Your task to perform on an android device: find snoozed emails in the gmail app Image 0: 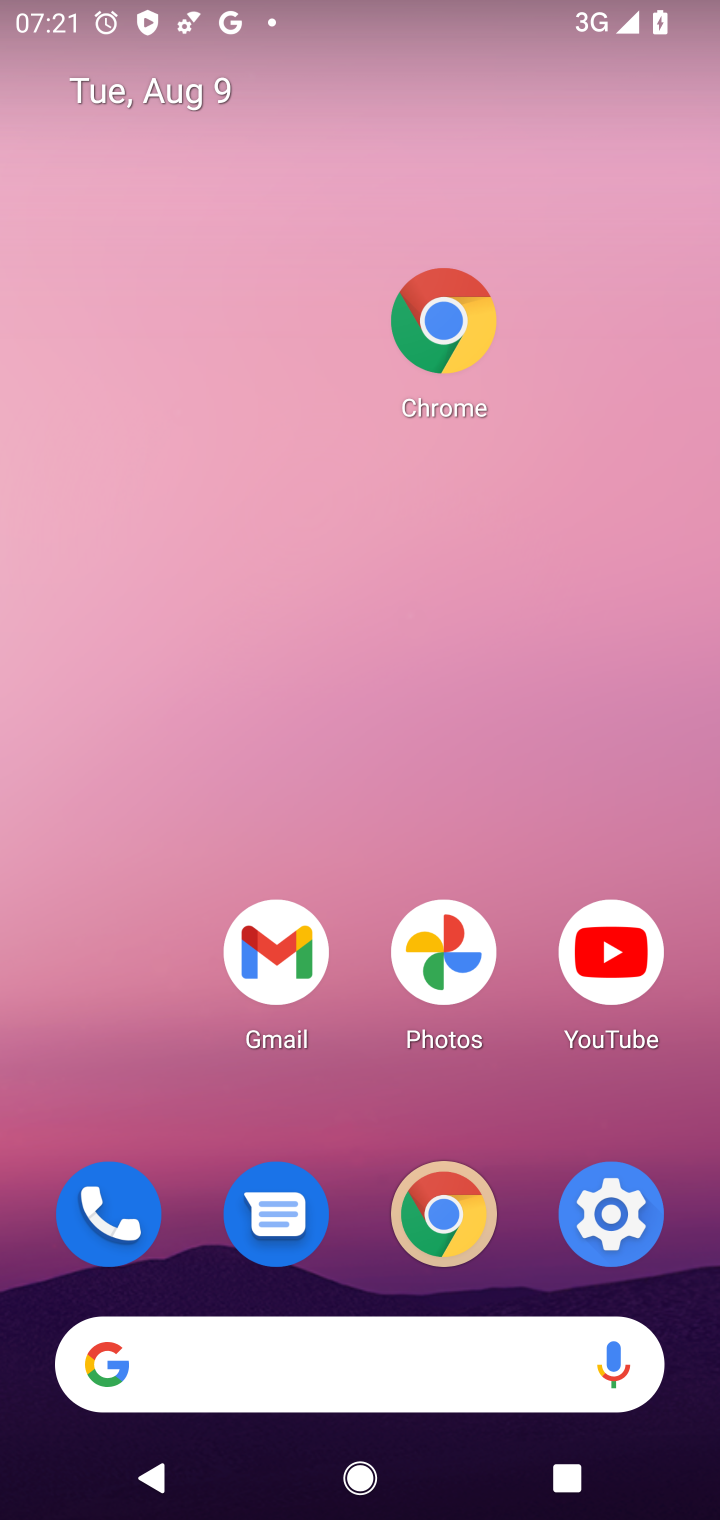
Step 0: drag from (569, 1405) to (516, 250)
Your task to perform on an android device: find snoozed emails in the gmail app Image 1: 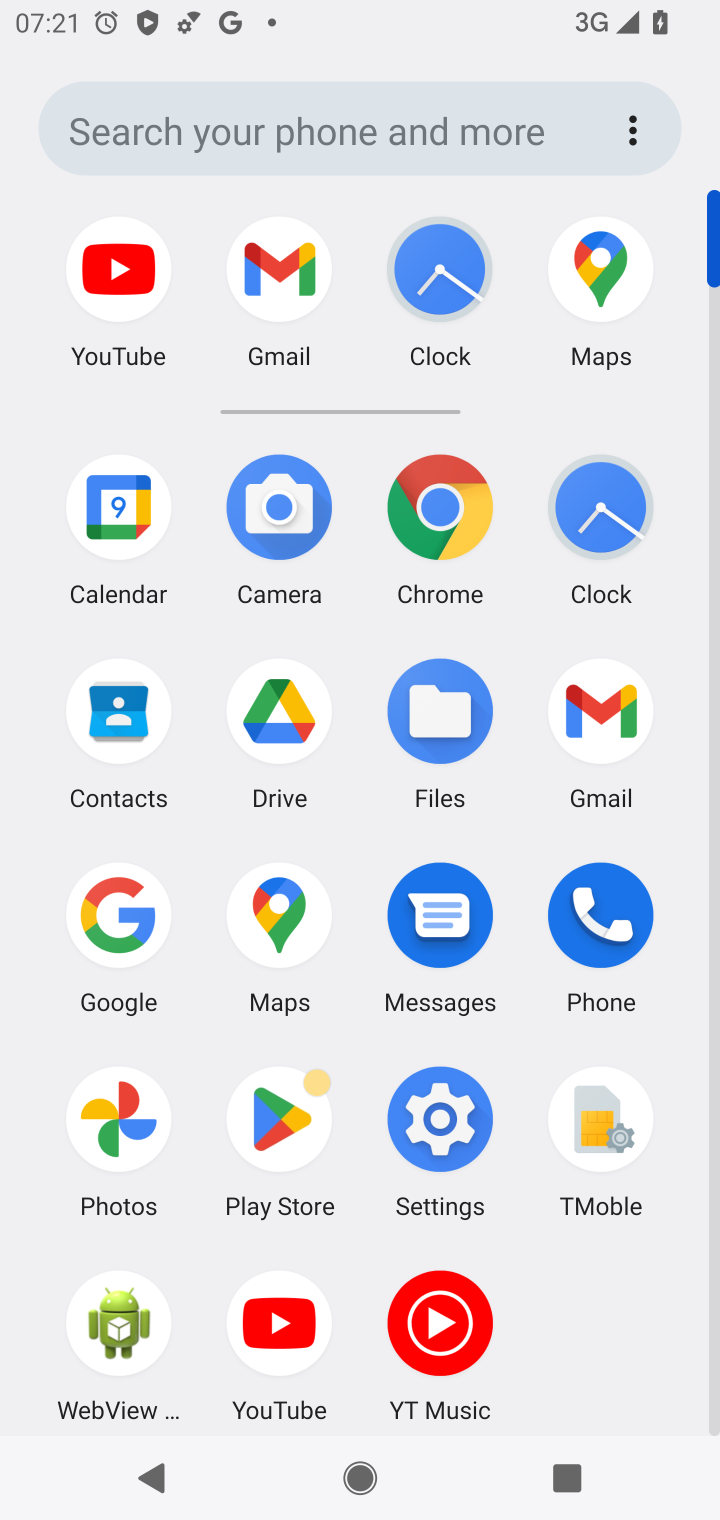
Step 1: click (634, 714)
Your task to perform on an android device: find snoozed emails in the gmail app Image 2: 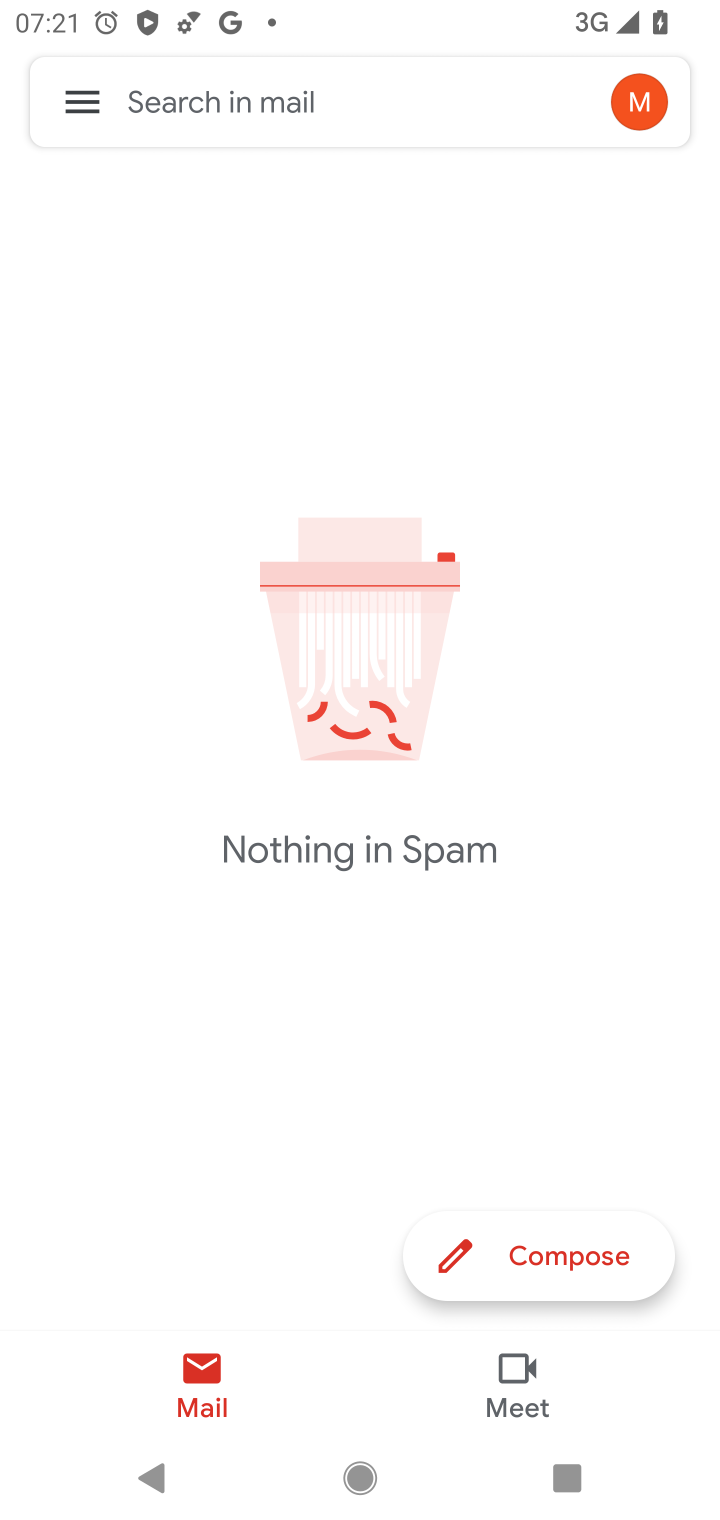
Step 2: click (94, 102)
Your task to perform on an android device: find snoozed emails in the gmail app Image 3: 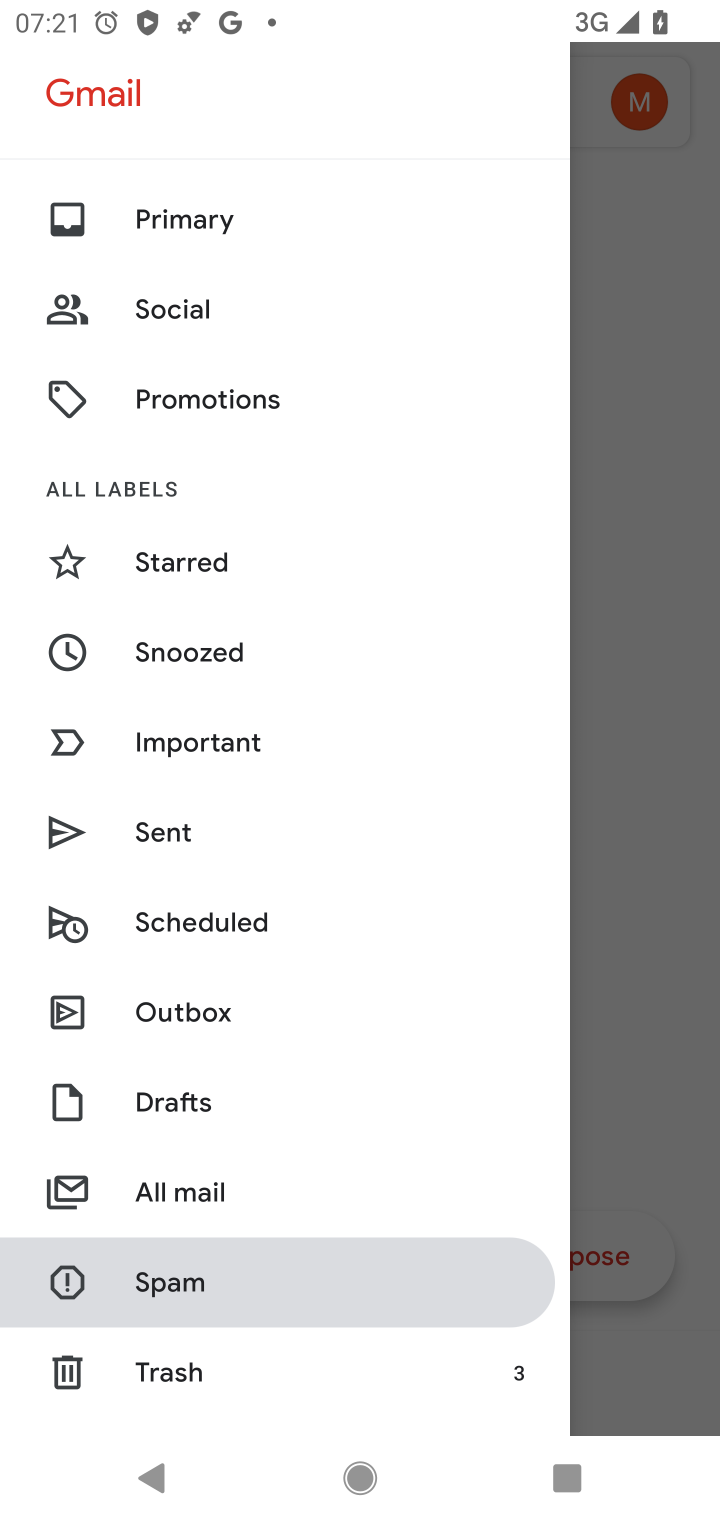
Step 3: click (156, 648)
Your task to perform on an android device: find snoozed emails in the gmail app Image 4: 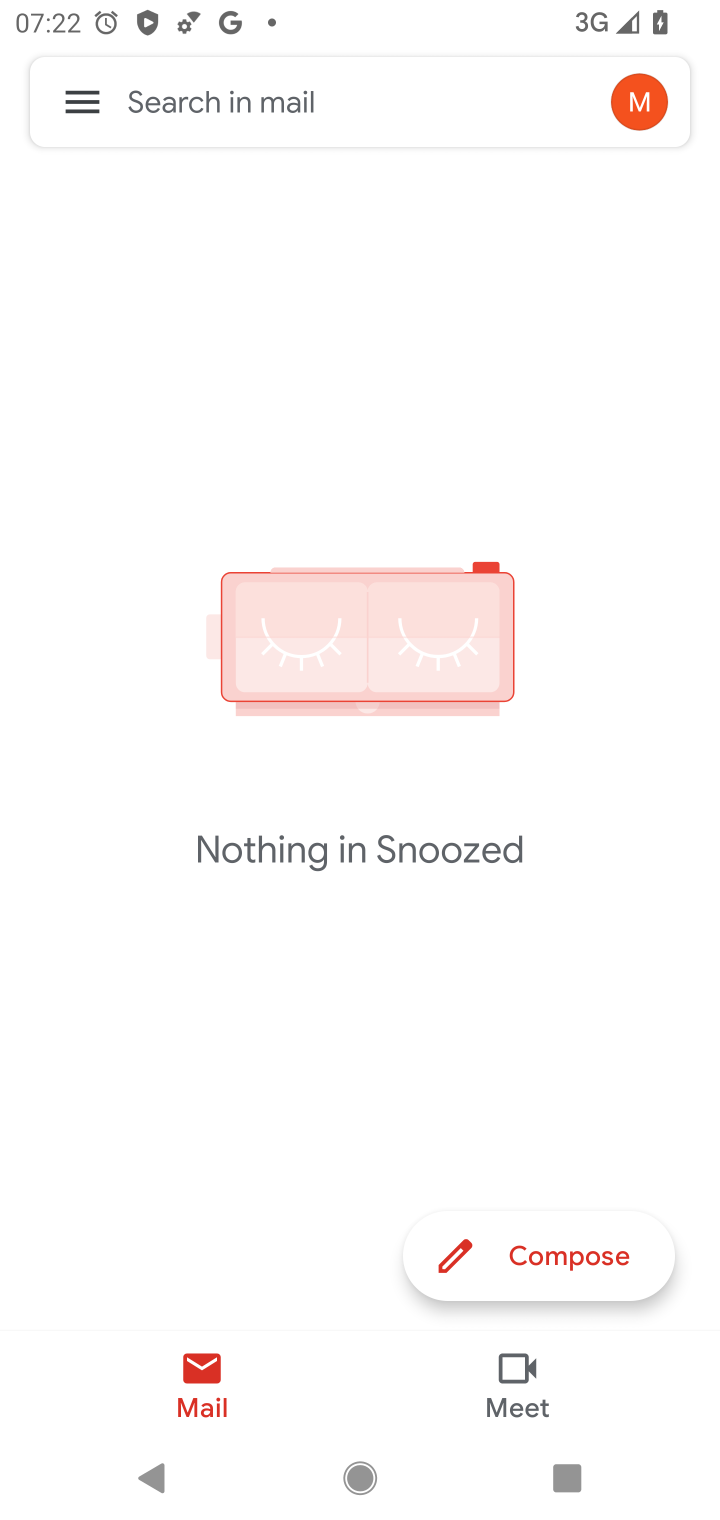
Step 4: task complete